Your task to perform on an android device: View the shopping cart on ebay.com. Add apple airpods to the cart on ebay.com Image 0: 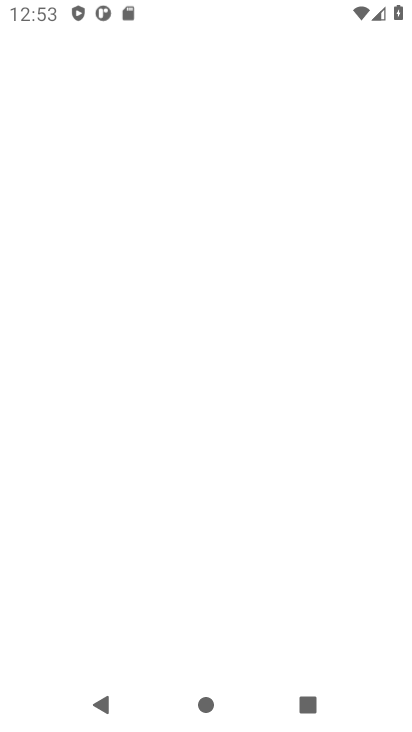
Step 0: press home button
Your task to perform on an android device: View the shopping cart on ebay.com. Add apple airpods to the cart on ebay.com Image 1: 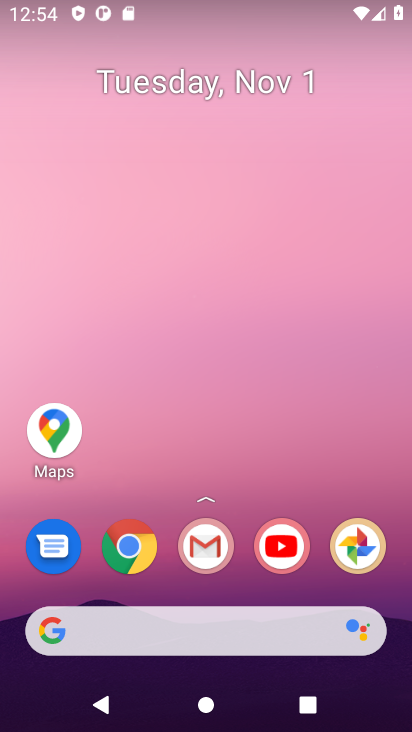
Step 1: click (44, 630)
Your task to perform on an android device: View the shopping cart on ebay.com. Add apple airpods to the cart on ebay.com Image 2: 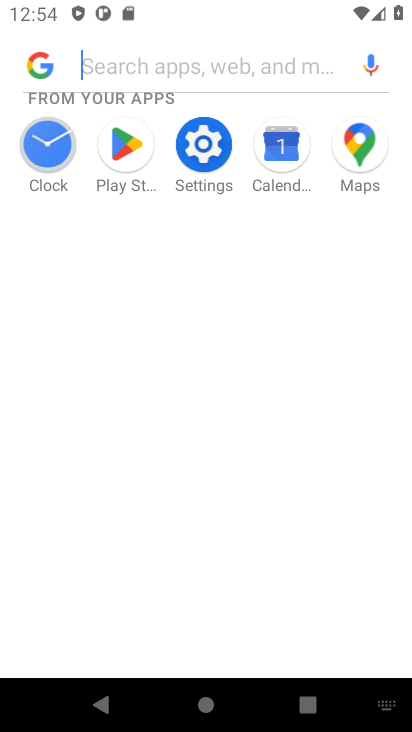
Step 2: type "ebay.com"
Your task to perform on an android device: View the shopping cart on ebay.com. Add apple airpods to the cart on ebay.com Image 3: 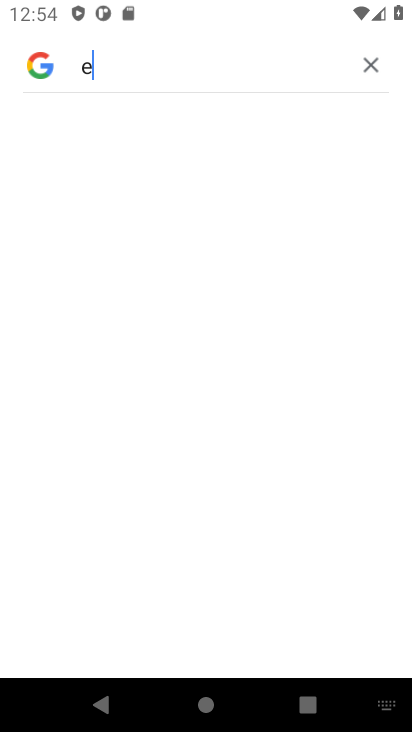
Step 3: type "bay.com"
Your task to perform on an android device: View the shopping cart on ebay.com. Add apple airpods to the cart on ebay.com Image 4: 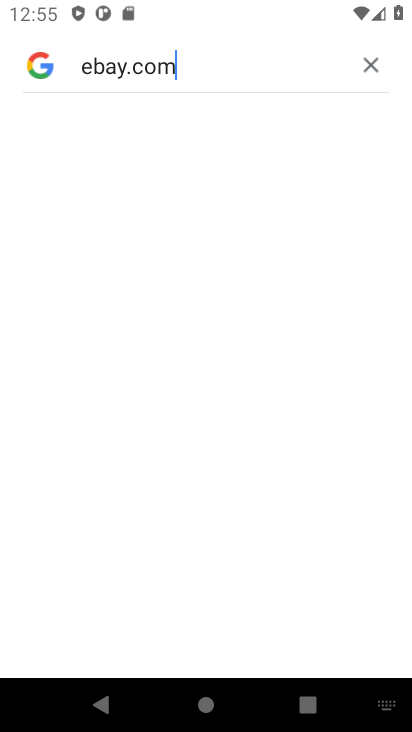
Step 4: task complete